Your task to perform on an android device: turn off priority inbox in the gmail app Image 0: 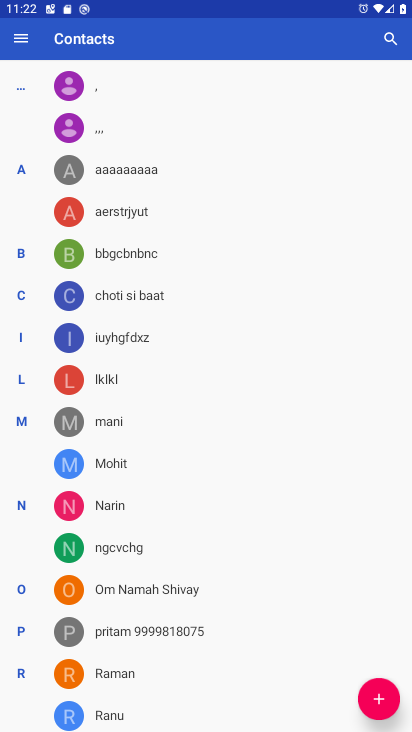
Step 0: press home button
Your task to perform on an android device: turn off priority inbox in the gmail app Image 1: 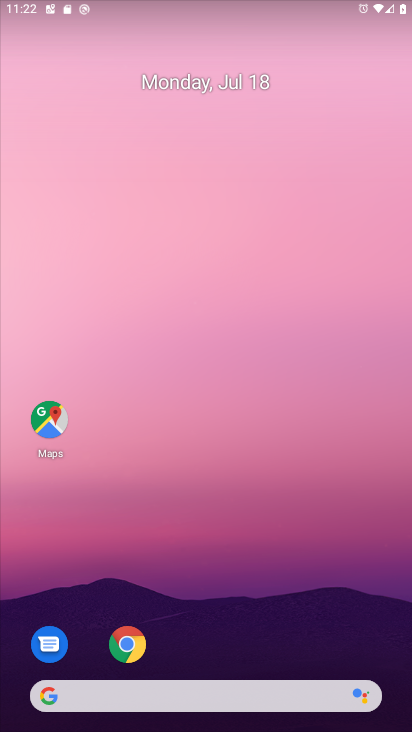
Step 1: drag from (254, 650) to (255, 79)
Your task to perform on an android device: turn off priority inbox in the gmail app Image 2: 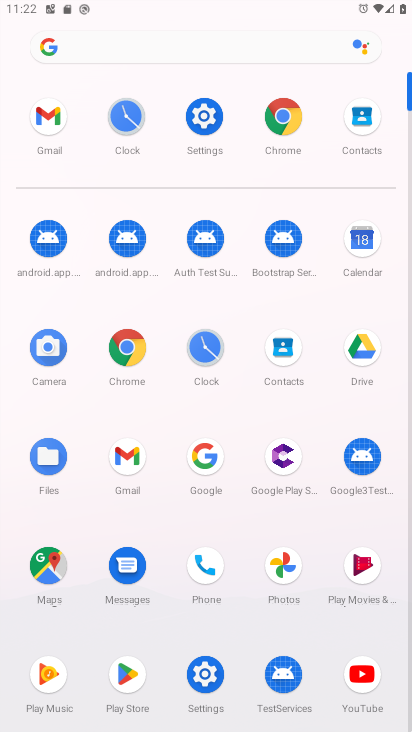
Step 2: click (58, 129)
Your task to perform on an android device: turn off priority inbox in the gmail app Image 3: 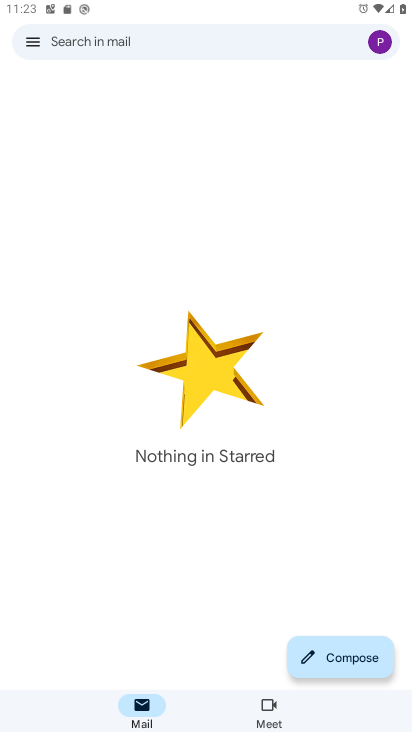
Step 3: task complete